Your task to perform on an android device: turn off location Image 0: 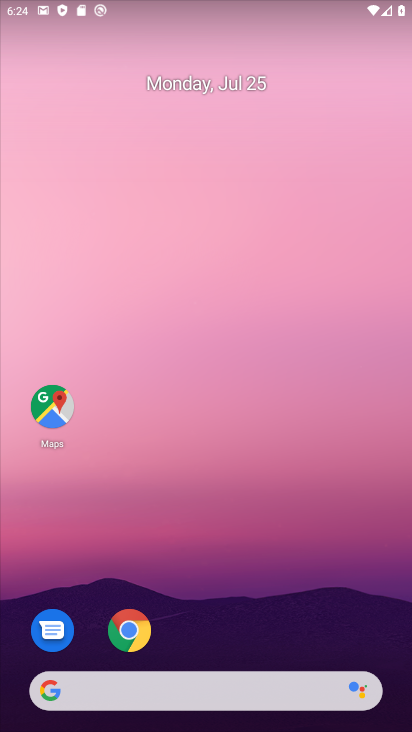
Step 0: drag from (238, 576) to (162, 43)
Your task to perform on an android device: turn off location Image 1: 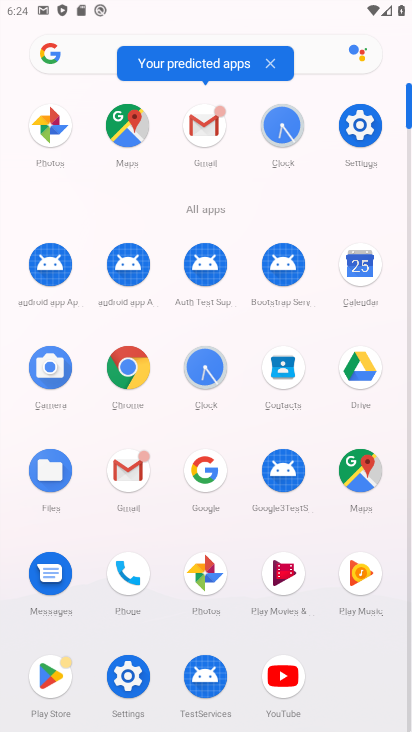
Step 1: click (359, 127)
Your task to perform on an android device: turn off location Image 2: 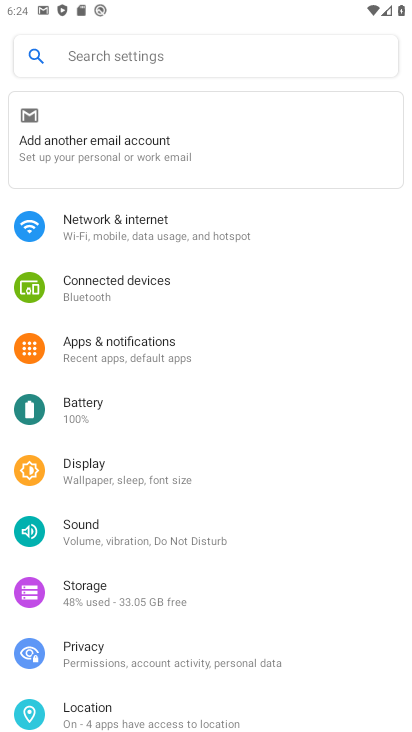
Step 2: click (82, 711)
Your task to perform on an android device: turn off location Image 3: 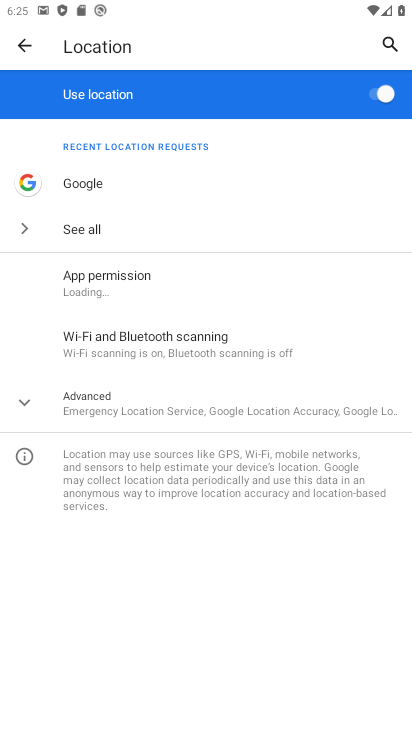
Step 3: click (380, 94)
Your task to perform on an android device: turn off location Image 4: 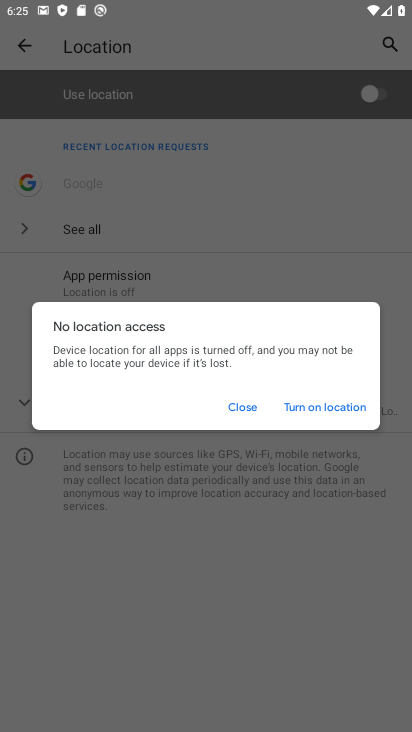
Step 4: click (238, 403)
Your task to perform on an android device: turn off location Image 5: 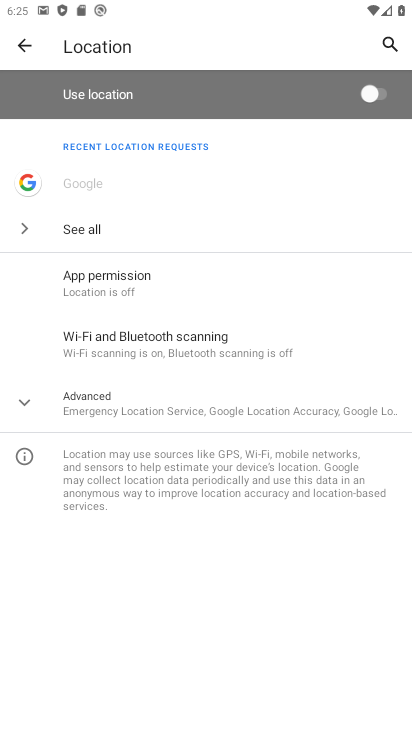
Step 5: task complete